Your task to perform on an android device: Open the stopwatch Image 0: 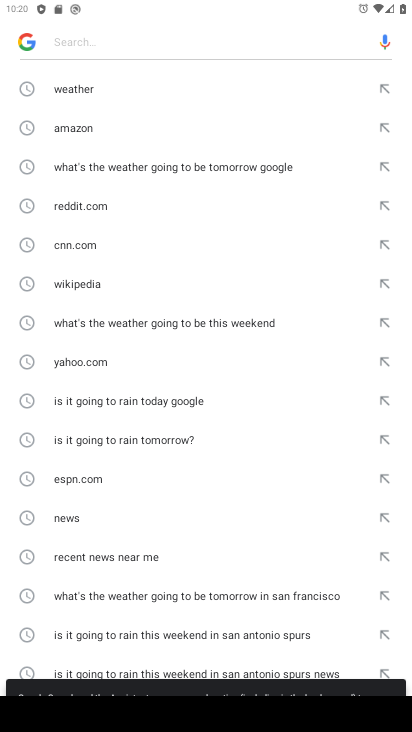
Step 0: press home button
Your task to perform on an android device: Open the stopwatch Image 1: 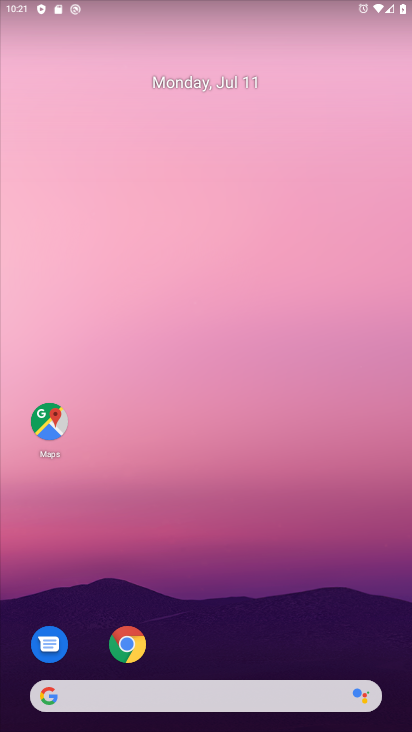
Step 1: drag from (251, 613) to (47, 37)
Your task to perform on an android device: Open the stopwatch Image 2: 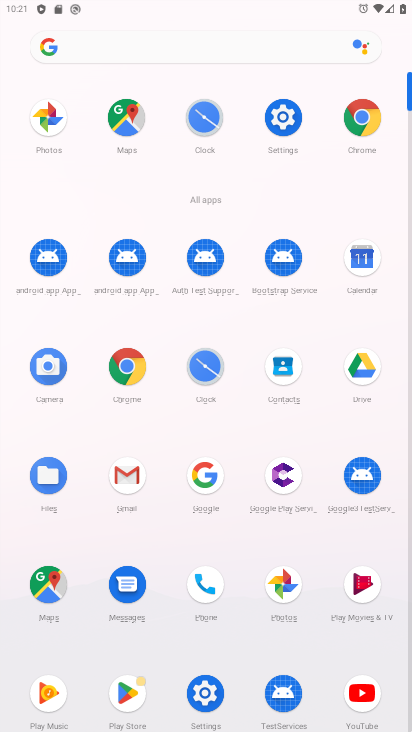
Step 2: click (201, 124)
Your task to perform on an android device: Open the stopwatch Image 3: 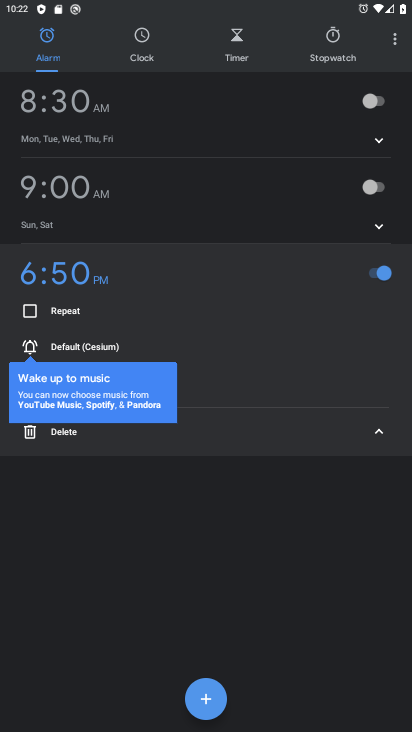
Step 3: click (341, 47)
Your task to perform on an android device: Open the stopwatch Image 4: 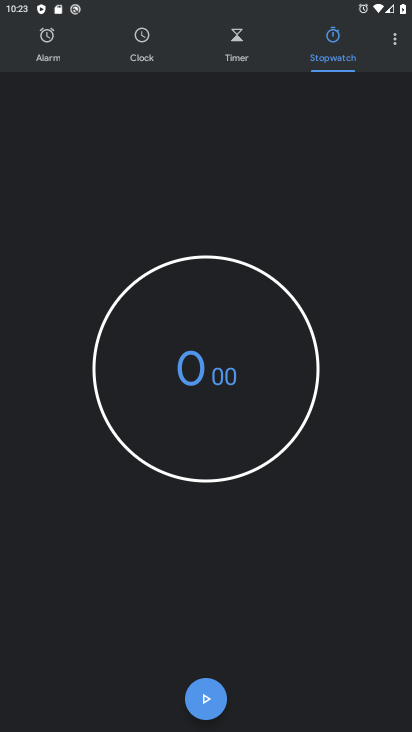
Step 4: task complete